Your task to perform on an android device: Open calendar and show me the second week of next month Image 0: 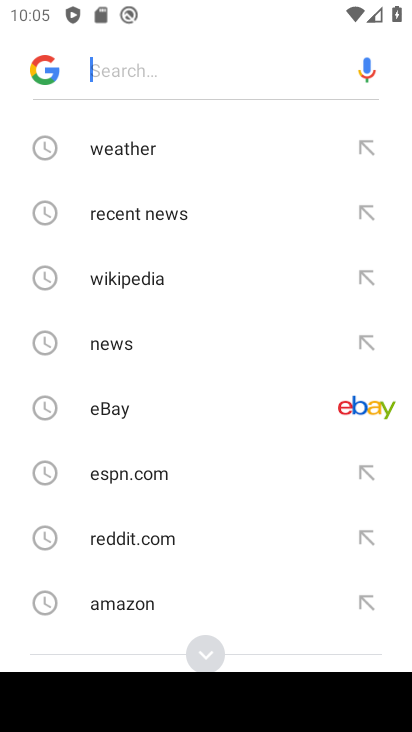
Step 0: press home button
Your task to perform on an android device: Open calendar and show me the second week of next month Image 1: 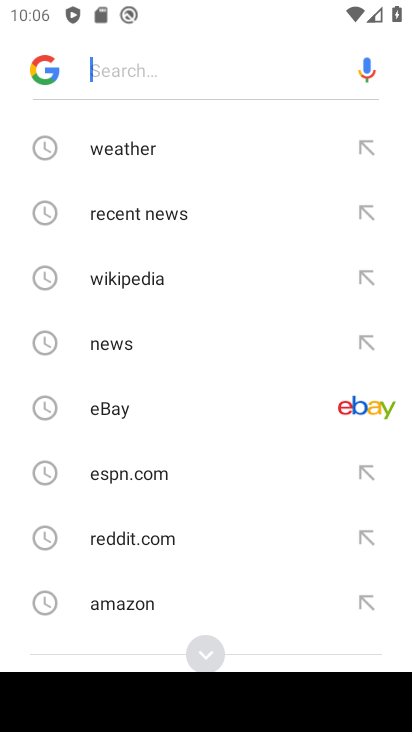
Step 1: press home button
Your task to perform on an android device: Open calendar and show me the second week of next month Image 2: 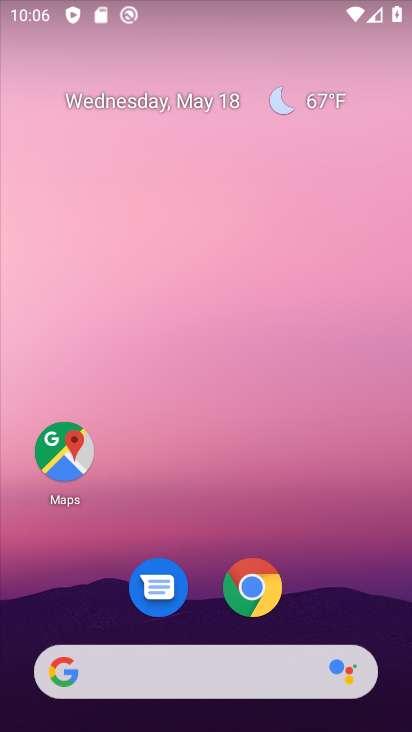
Step 2: drag from (332, 559) to (260, 229)
Your task to perform on an android device: Open calendar and show me the second week of next month Image 3: 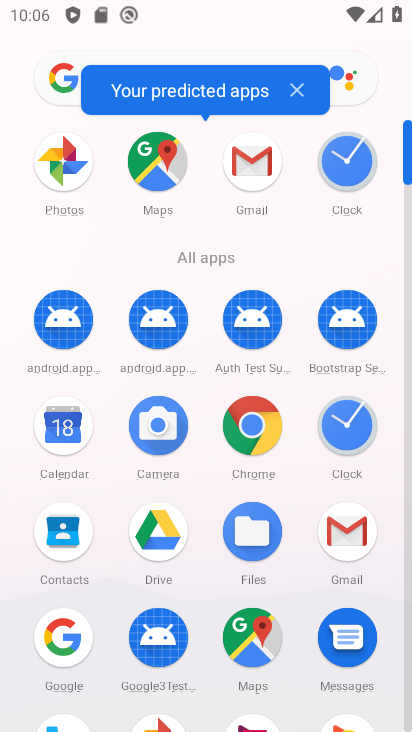
Step 3: click (55, 428)
Your task to perform on an android device: Open calendar and show me the second week of next month Image 4: 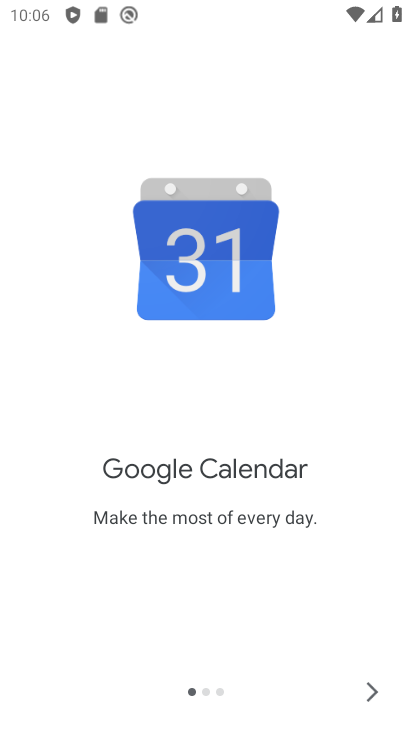
Step 4: click (355, 690)
Your task to perform on an android device: Open calendar and show me the second week of next month Image 5: 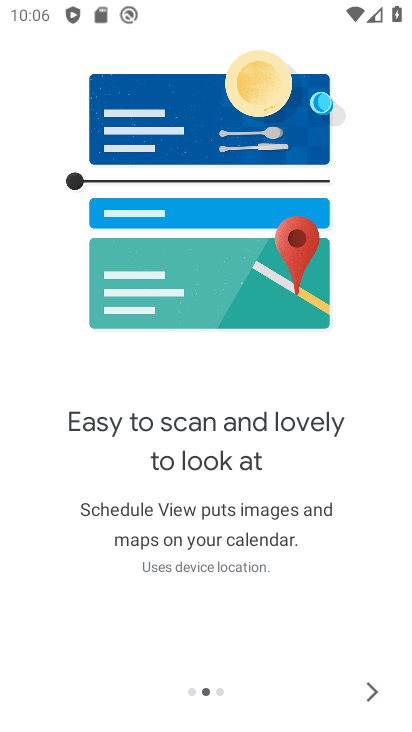
Step 5: click (355, 687)
Your task to perform on an android device: Open calendar and show me the second week of next month Image 6: 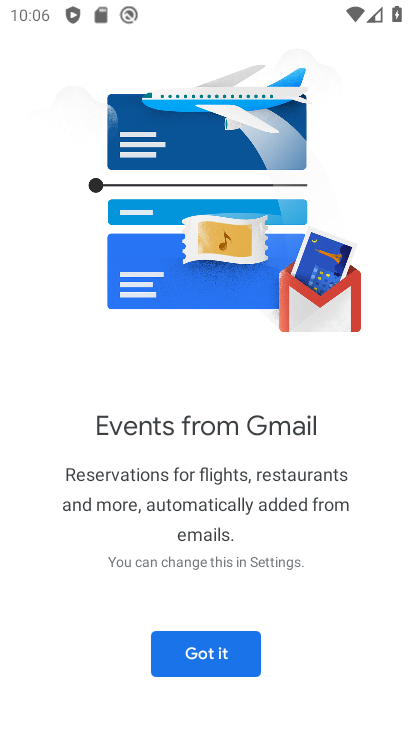
Step 6: click (174, 652)
Your task to perform on an android device: Open calendar and show me the second week of next month Image 7: 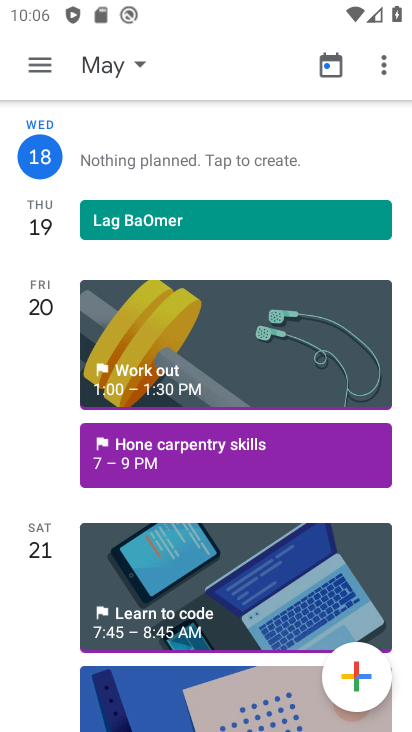
Step 7: click (127, 61)
Your task to perform on an android device: Open calendar and show me the second week of next month Image 8: 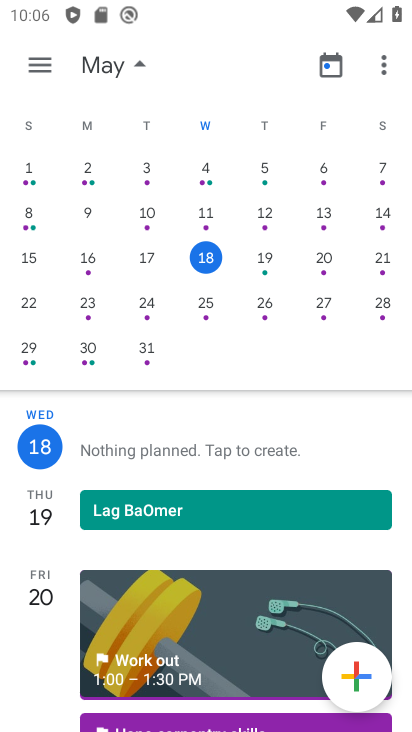
Step 8: click (25, 57)
Your task to perform on an android device: Open calendar and show me the second week of next month Image 9: 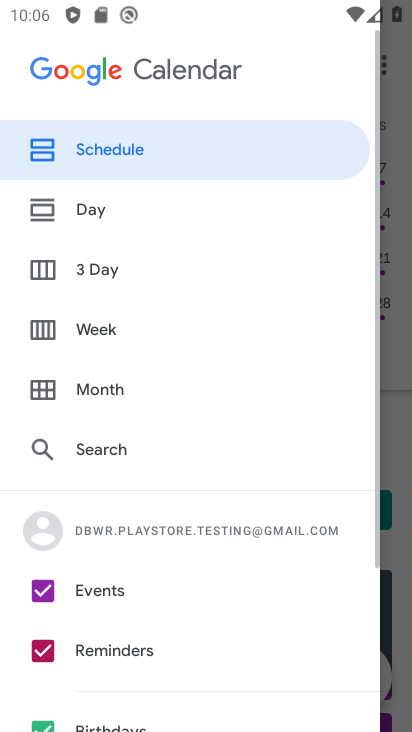
Step 9: click (396, 324)
Your task to perform on an android device: Open calendar and show me the second week of next month Image 10: 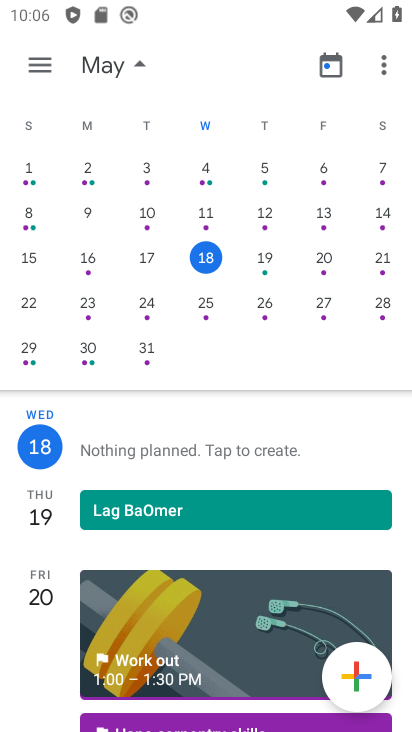
Step 10: drag from (370, 198) to (2, 128)
Your task to perform on an android device: Open calendar and show me the second week of next month Image 11: 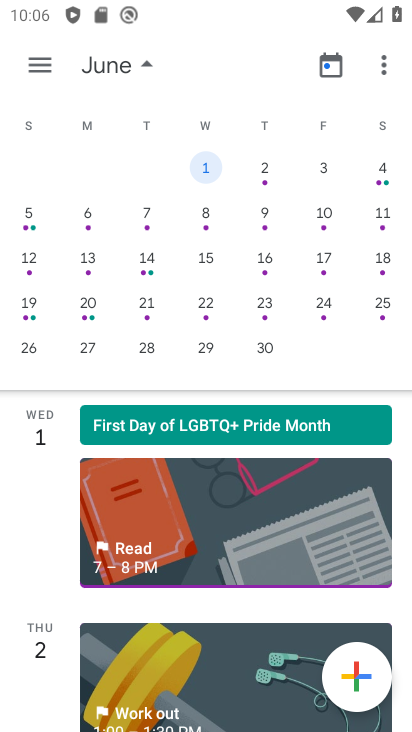
Step 11: click (34, 56)
Your task to perform on an android device: Open calendar and show me the second week of next month Image 12: 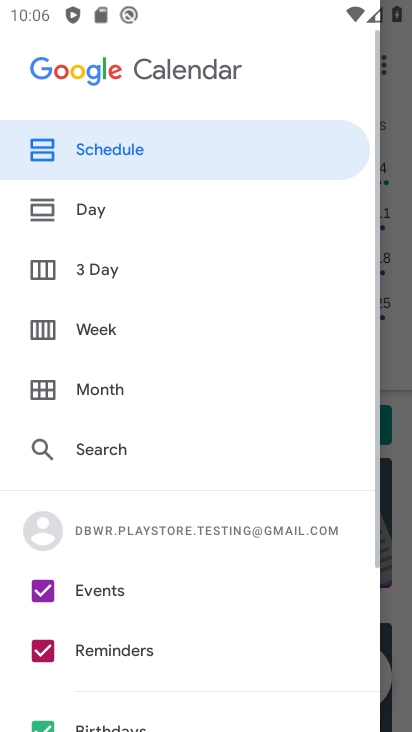
Step 12: click (86, 329)
Your task to perform on an android device: Open calendar and show me the second week of next month Image 13: 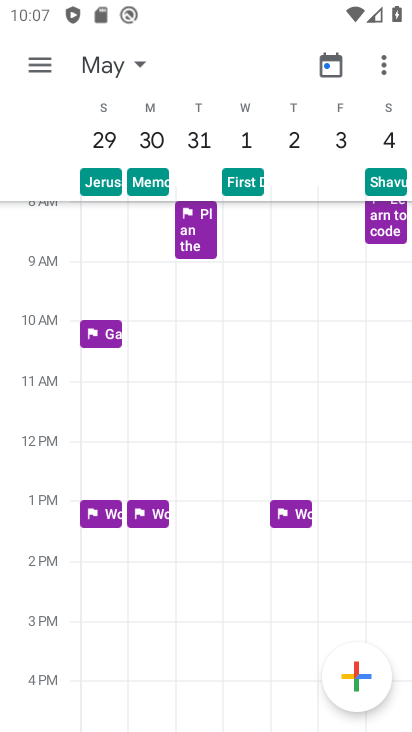
Step 13: task complete